Your task to perform on an android device: set the stopwatch Image 0: 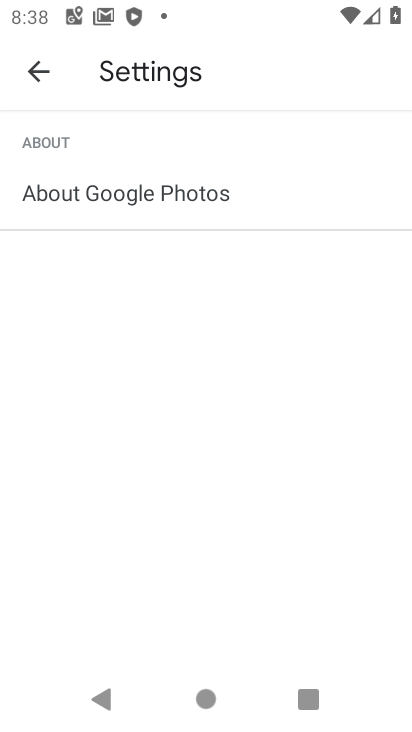
Step 0: press home button
Your task to perform on an android device: set the stopwatch Image 1: 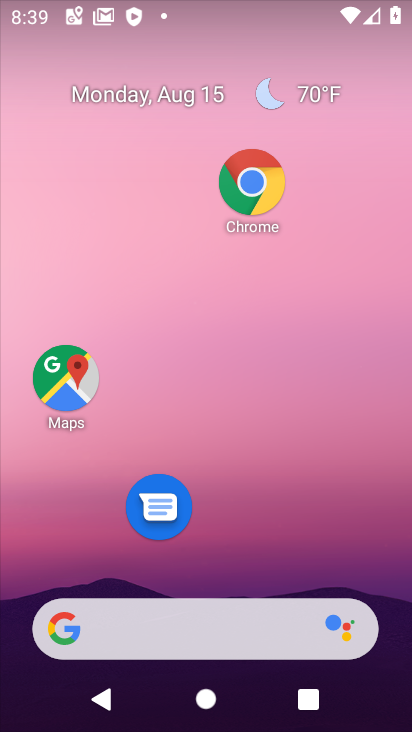
Step 1: drag from (222, 592) to (156, 115)
Your task to perform on an android device: set the stopwatch Image 2: 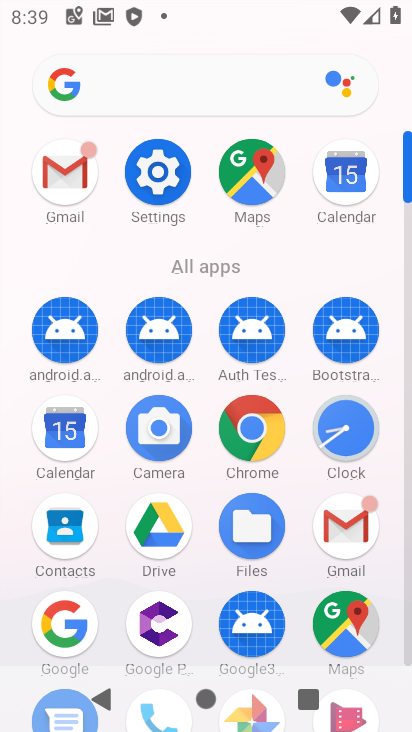
Step 2: click (329, 433)
Your task to perform on an android device: set the stopwatch Image 3: 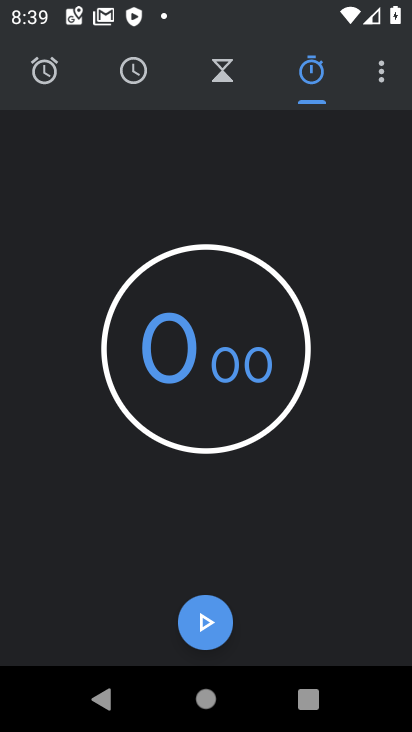
Step 3: click (262, 79)
Your task to perform on an android device: set the stopwatch Image 4: 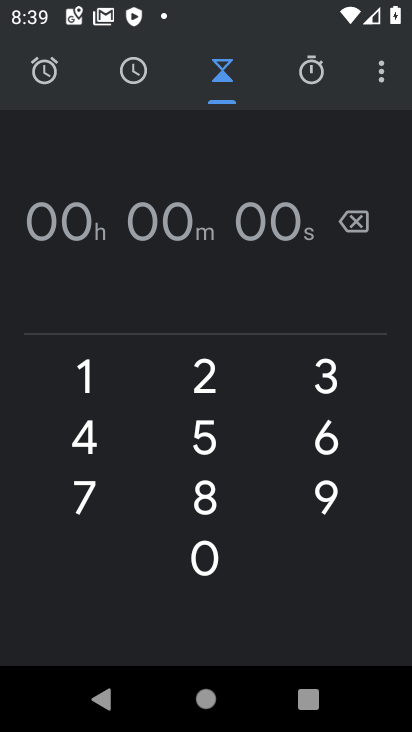
Step 4: click (246, 79)
Your task to perform on an android device: set the stopwatch Image 5: 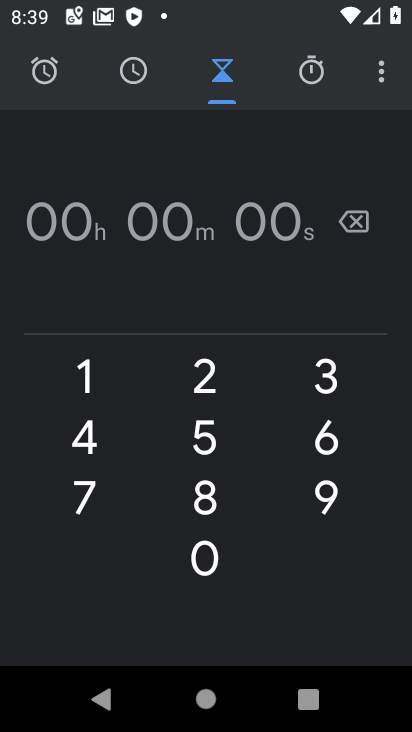
Step 5: click (153, 79)
Your task to perform on an android device: set the stopwatch Image 6: 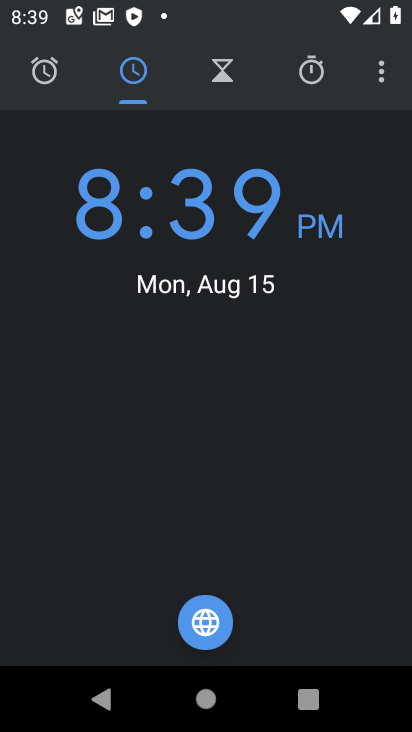
Step 6: click (303, 78)
Your task to perform on an android device: set the stopwatch Image 7: 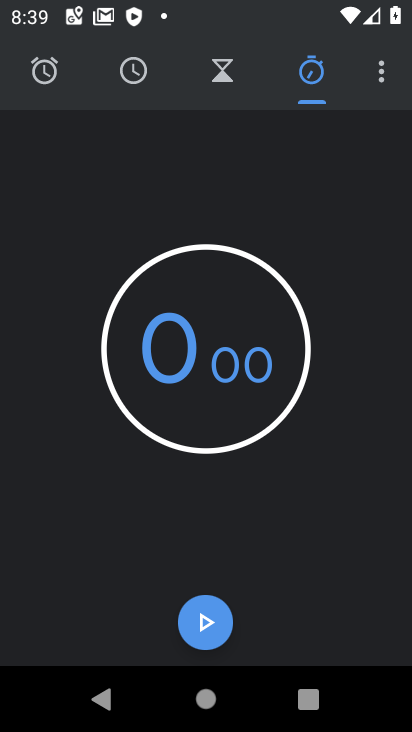
Step 7: task complete